Your task to perform on an android device: turn on location history Image 0: 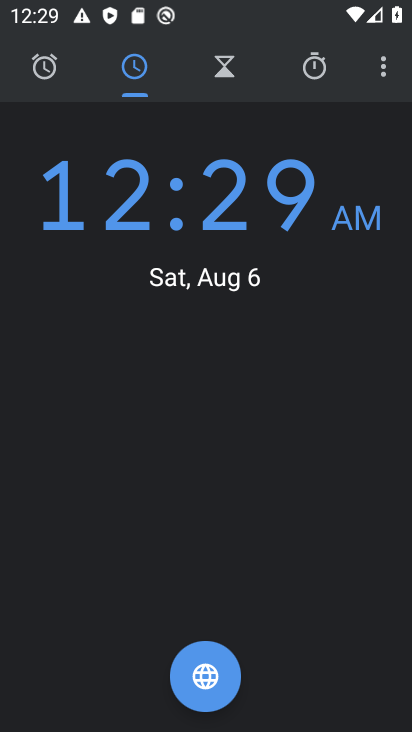
Step 0: press home button
Your task to perform on an android device: turn on location history Image 1: 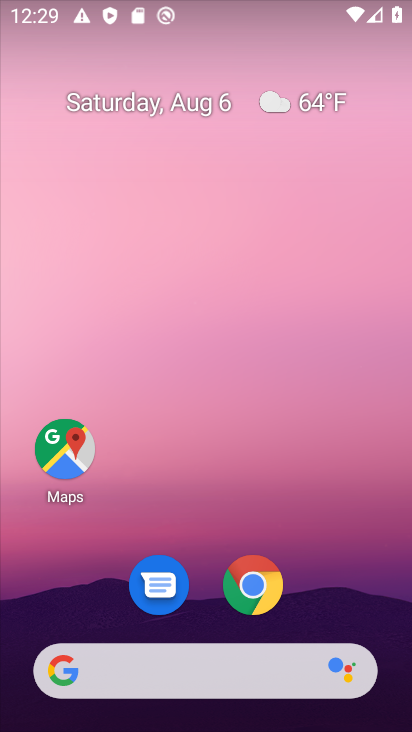
Step 1: drag from (218, 473) to (223, 0)
Your task to perform on an android device: turn on location history Image 2: 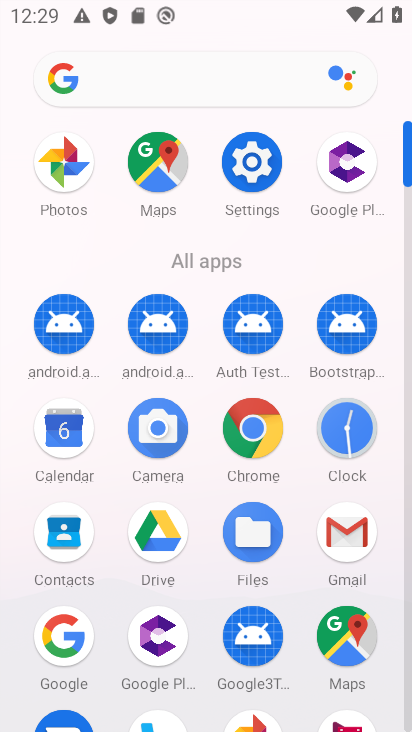
Step 2: click (252, 163)
Your task to perform on an android device: turn on location history Image 3: 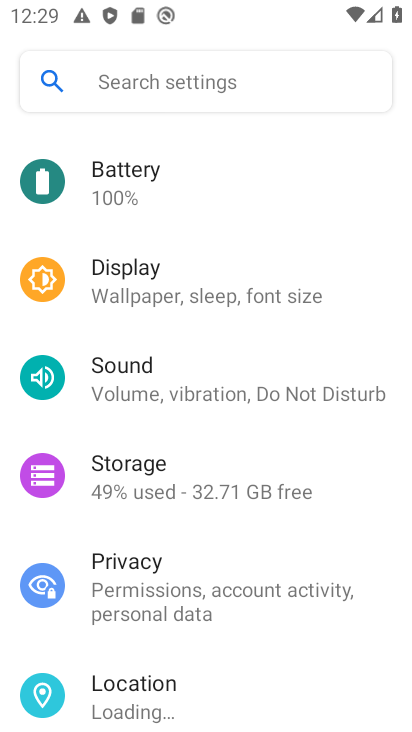
Step 3: click (161, 691)
Your task to perform on an android device: turn on location history Image 4: 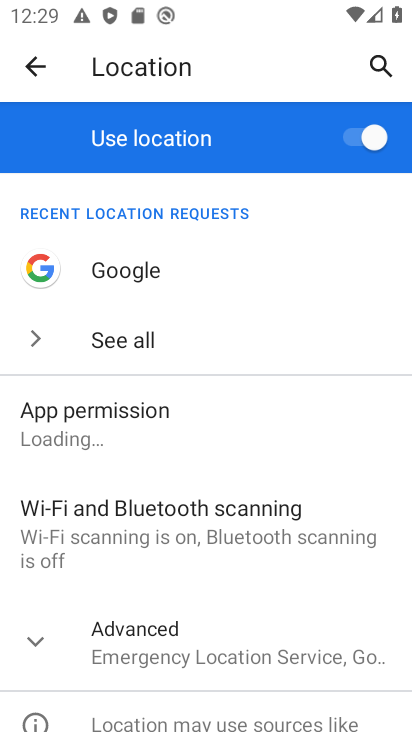
Step 4: task complete